Your task to perform on an android device: turn off translation in the chrome app Image 0: 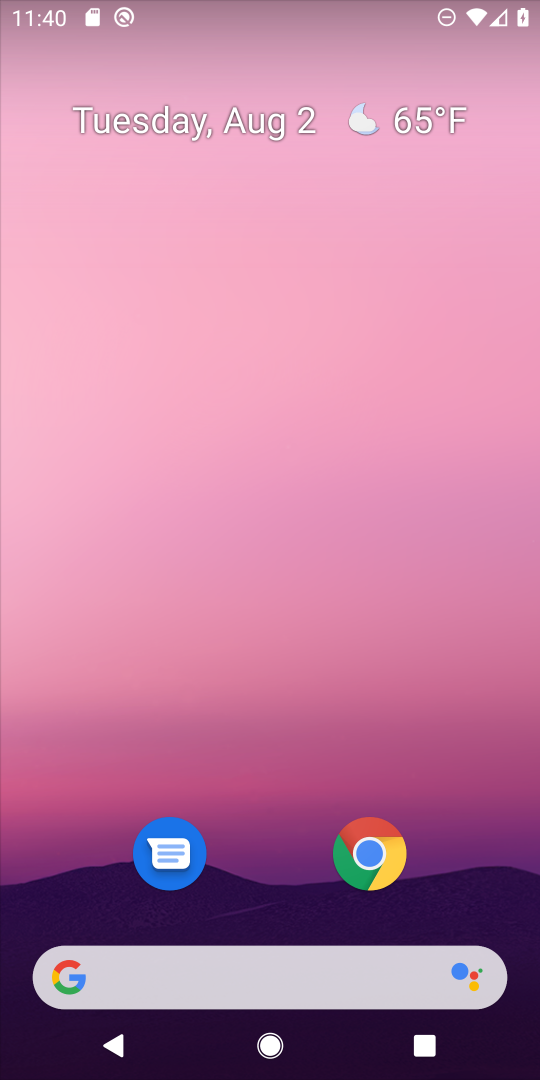
Step 0: press home button
Your task to perform on an android device: turn off translation in the chrome app Image 1: 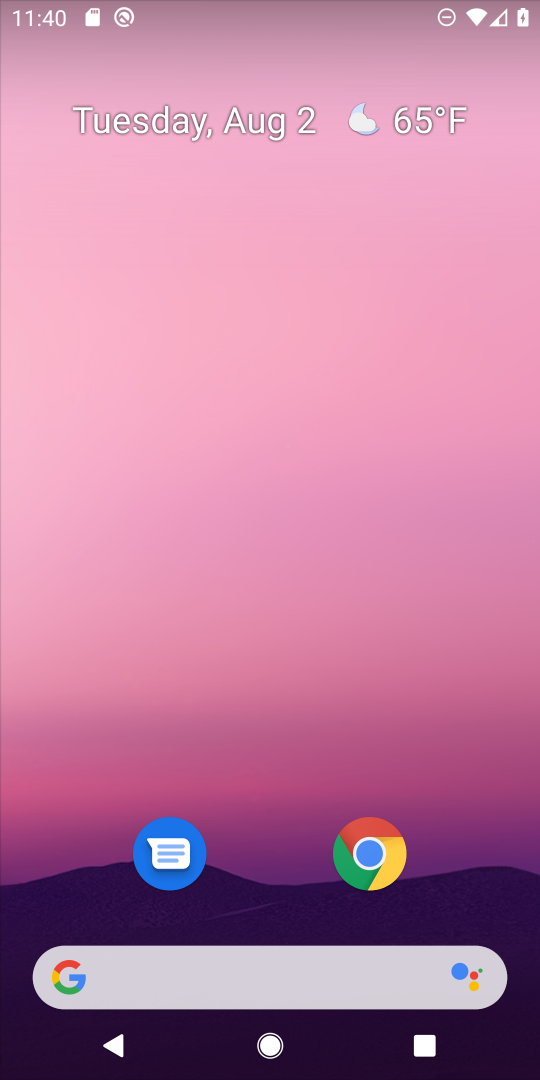
Step 1: click (367, 871)
Your task to perform on an android device: turn off translation in the chrome app Image 2: 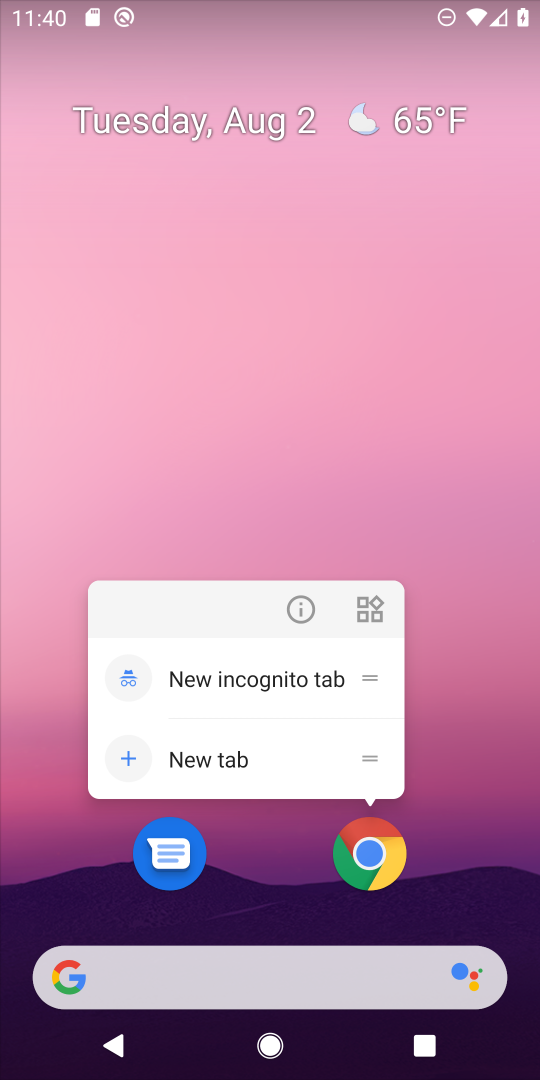
Step 2: click (367, 871)
Your task to perform on an android device: turn off translation in the chrome app Image 3: 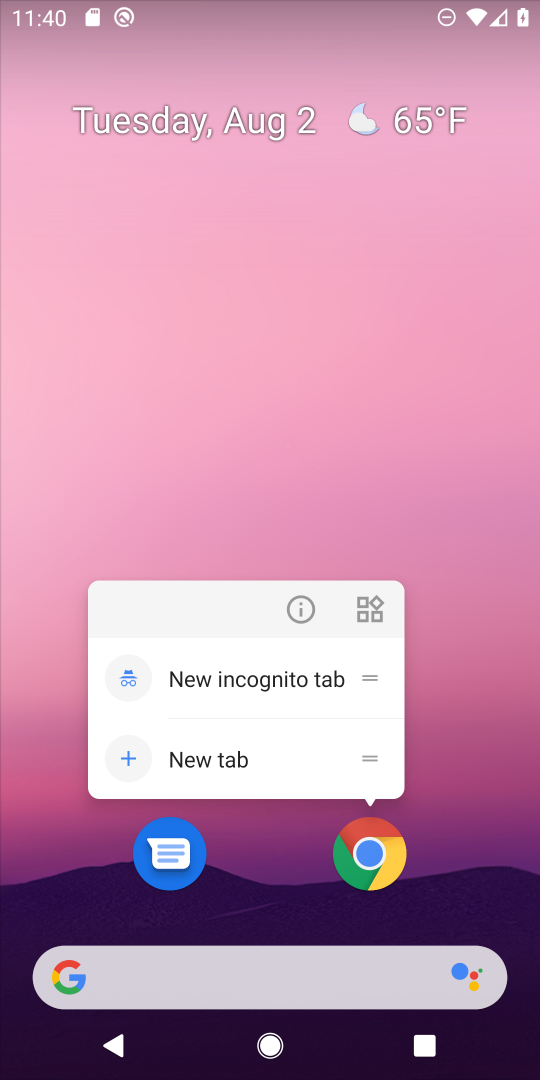
Step 3: click (367, 871)
Your task to perform on an android device: turn off translation in the chrome app Image 4: 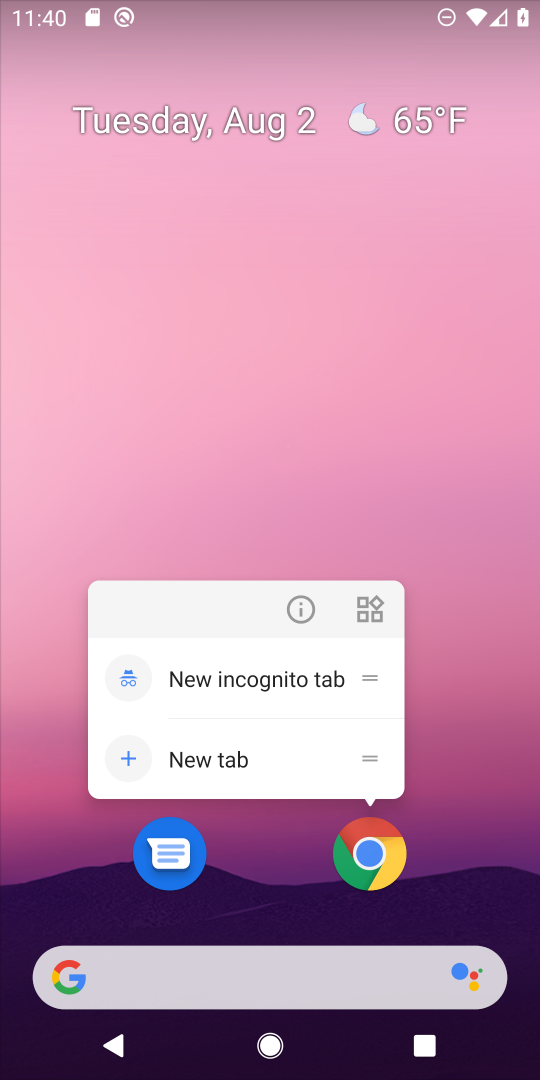
Step 4: click (367, 871)
Your task to perform on an android device: turn off translation in the chrome app Image 5: 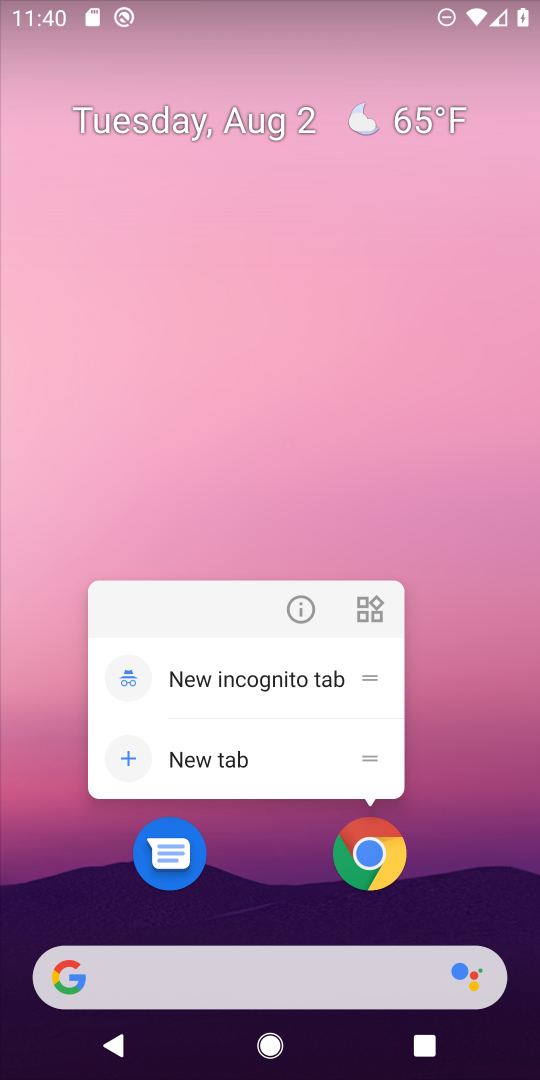
Step 5: click (367, 871)
Your task to perform on an android device: turn off translation in the chrome app Image 6: 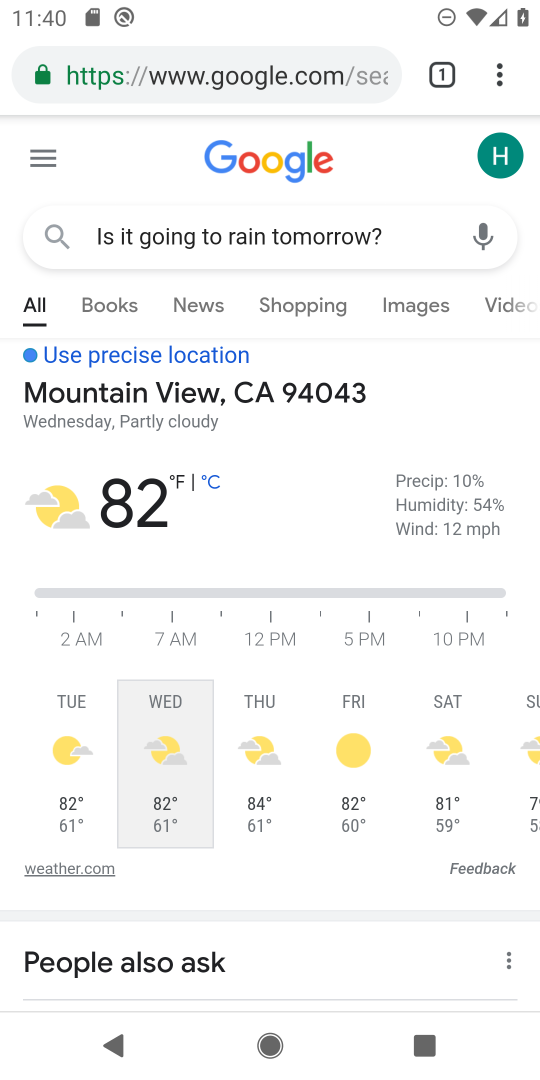
Step 6: drag from (509, 59) to (276, 917)
Your task to perform on an android device: turn off translation in the chrome app Image 7: 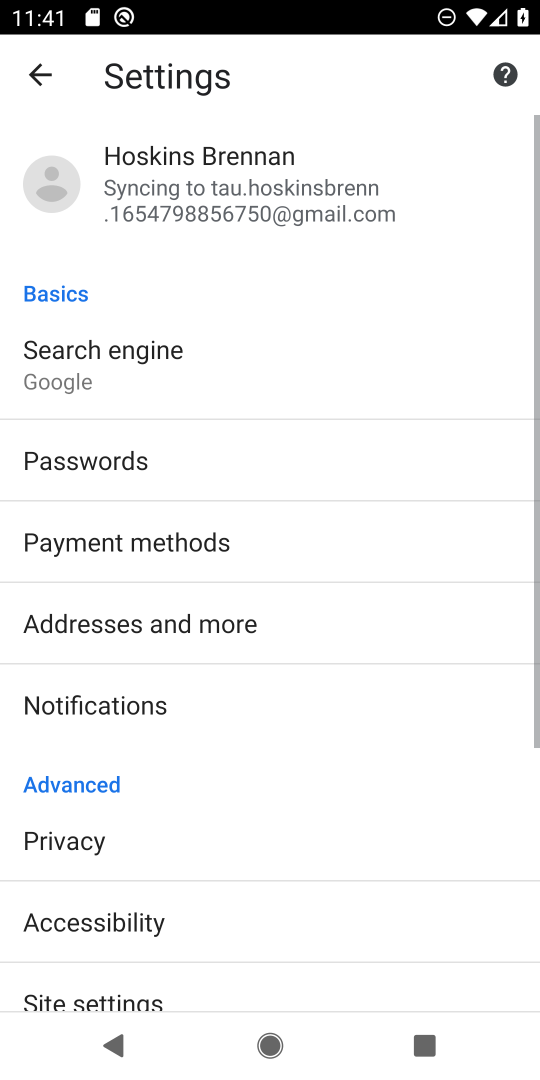
Step 7: drag from (147, 893) to (193, 76)
Your task to perform on an android device: turn off translation in the chrome app Image 8: 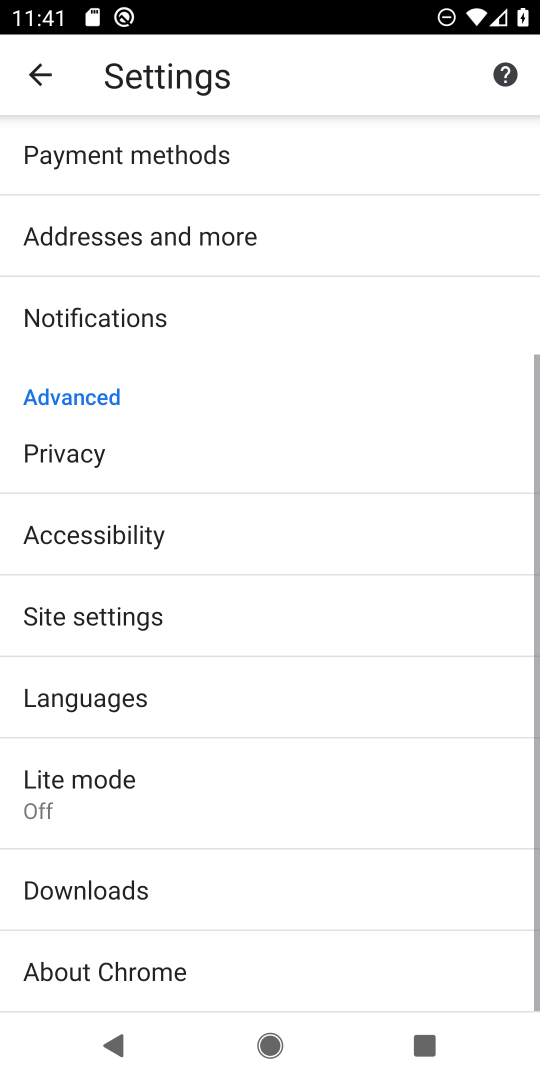
Step 8: click (157, 713)
Your task to perform on an android device: turn off translation in the chrome app Image 9: 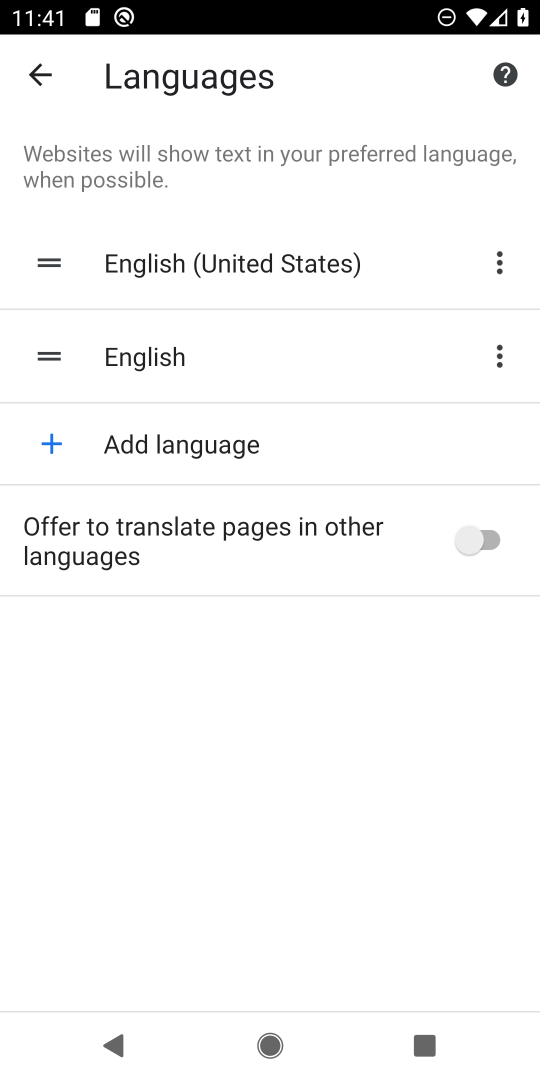
Step 9: task complete